Your task to perform on an android device: Search for sushi restaurants on Maps Image 0: 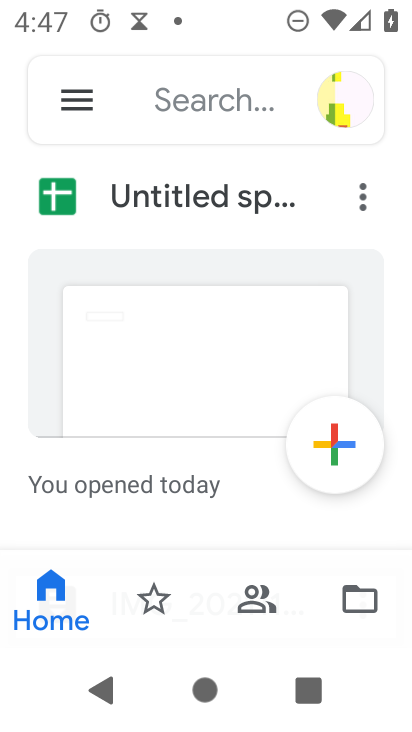
Step 0: press home button
Your task to perform on an android device: Search for sushi restaurants on Maps Image 1: 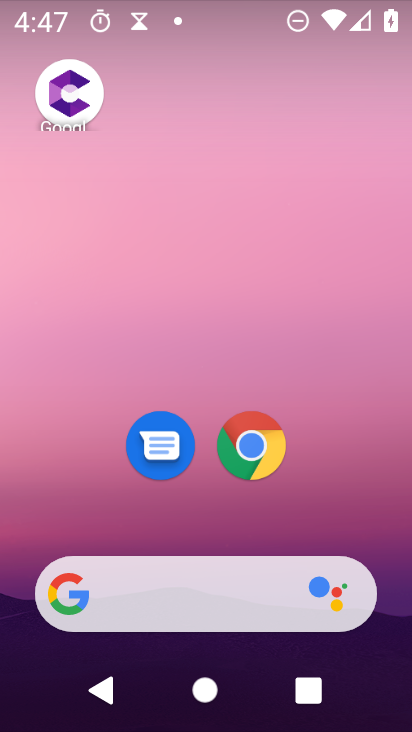
Step 1: drag from (226, 477) to (251, 81)
Your task to perform on an android device: Search for sushi restaurants on Maps Image 2: 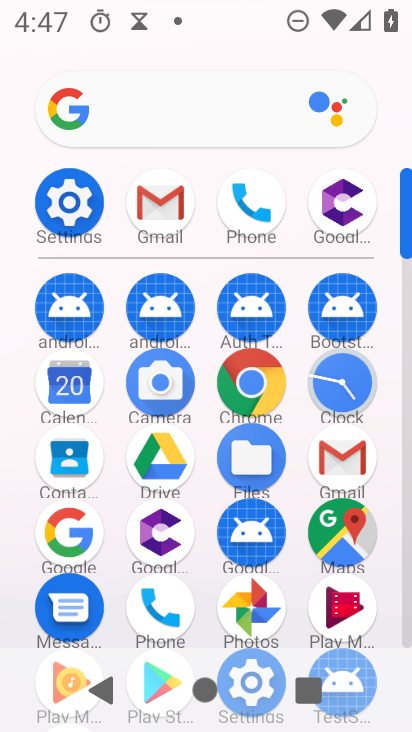
Step 2: click (343, 537)
Your task to perform on an android device: Search for sushi restaurants on Maps Image 3: 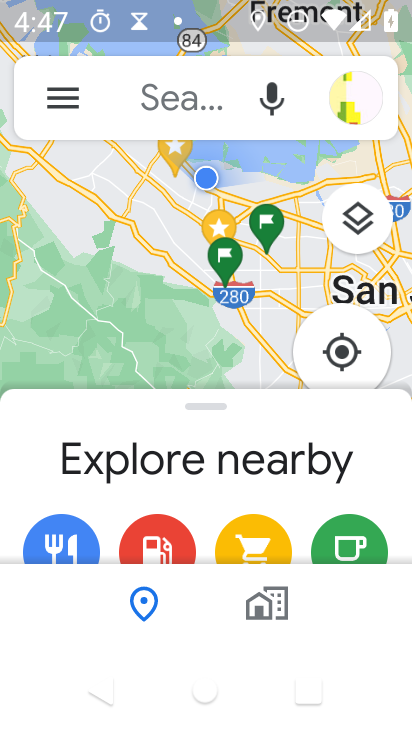
Step 3: click (192, 106)
Your task to perform on an android device: Search for sushi restaurants on Maps Image 4: 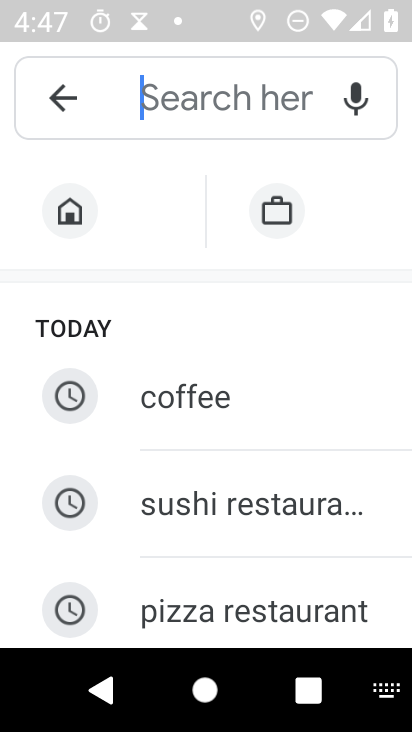
Step 4: type "sushi restaurants"
Your task to perform on an android device: Search for sushi restaurants on Maps Image 5: 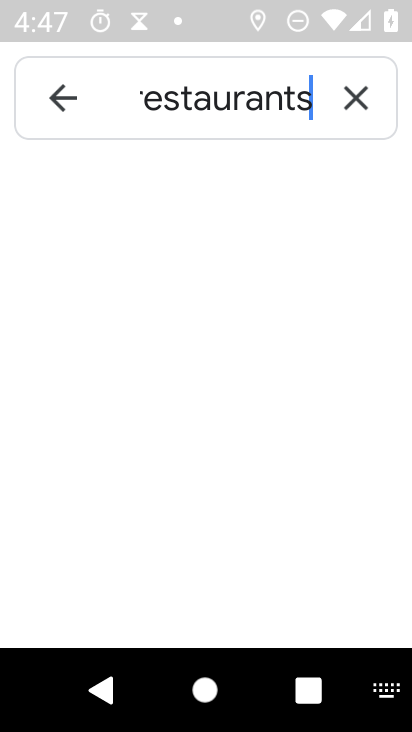
Step 5: type ""
Your task to perform on an android device: Search for sushi restaurants on Maps Image 6: 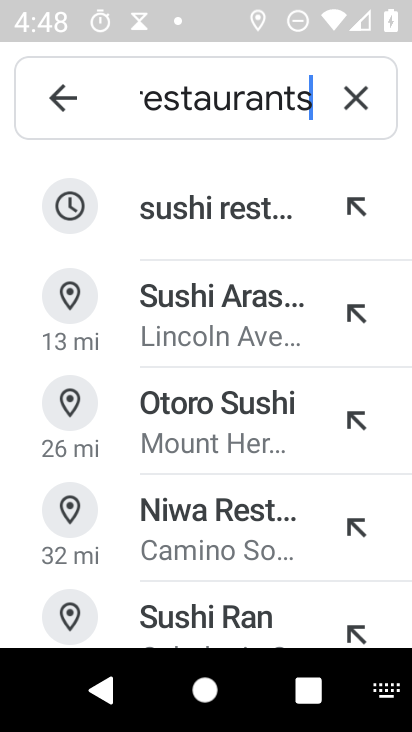
Step 6: click (217, 207)
Your task to perform on an android device: Search for sushi restaurants on Maps Image 7: 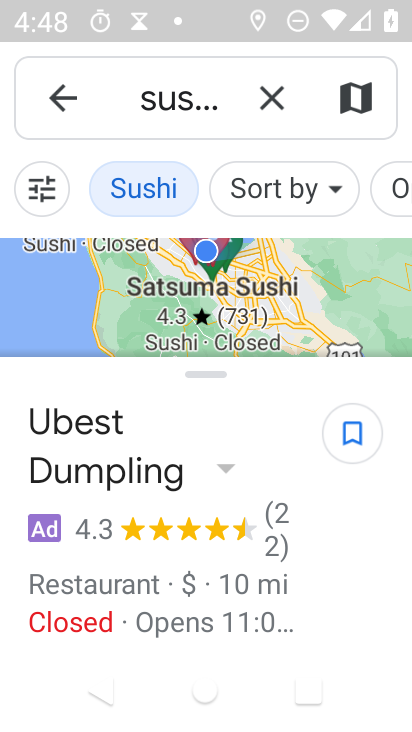
Step 7: task complete